Your task to perform on an android device: Open calendar and show me the second week of next month Image 0: 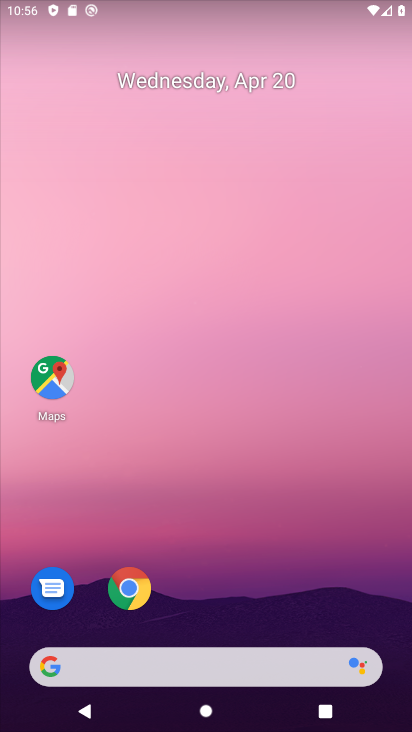
Step 0: drag from (220, 400) to (258, 123)
Your task to perform on an android device: Open calendar and show me the second week of next month Image 1: 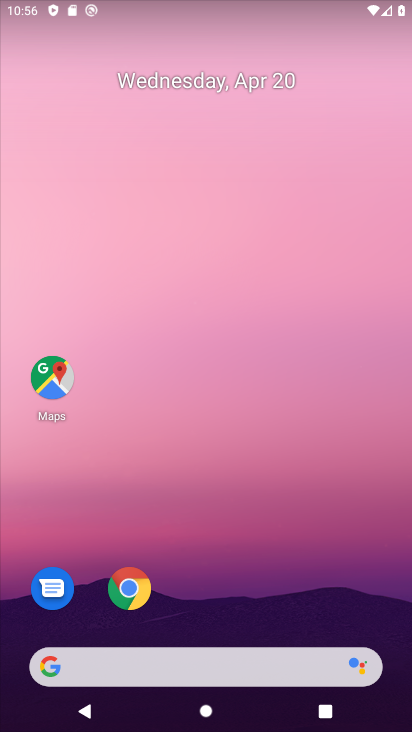
Step 1: drag from (238, 491) to (338, 93)
Your task to perform on an android device: Open calendar and show me the second week of next month Image 2: 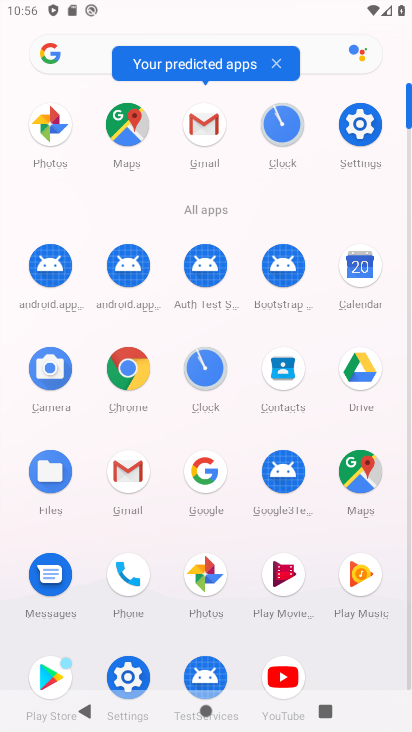
Step 2: click (368, 266)
Your task to perform on an android device: Open calendar and show me the second week of next month Image 3: 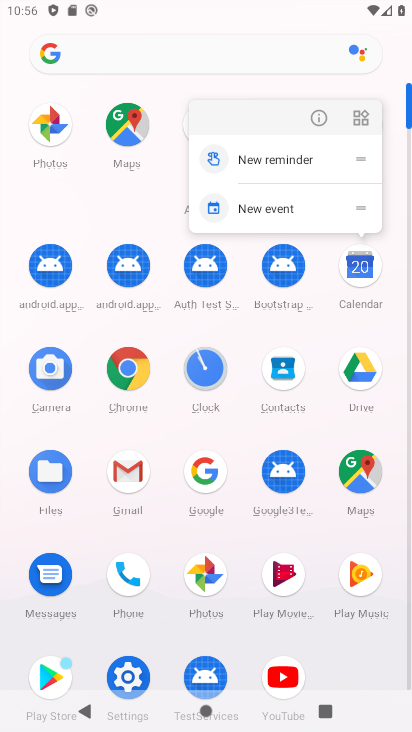
Step 3: click (366, 266)
Your task to perform on an android device: Open calendar and show me the second week of next month Image 4: 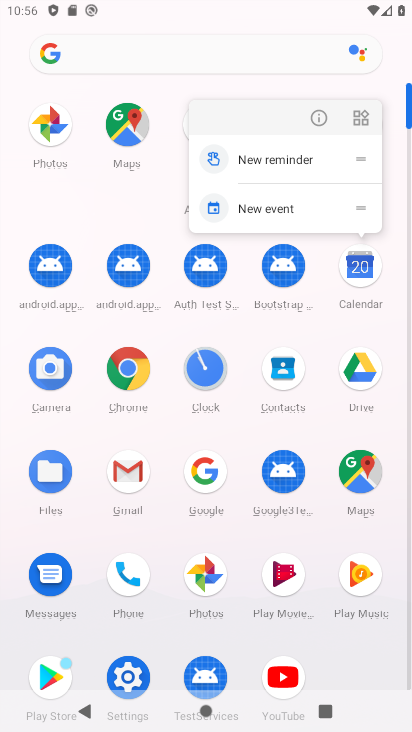
Step 4: click (360, 277)
Your task to perform on an android device: Open calendar and show me the second week of next month Image 5: 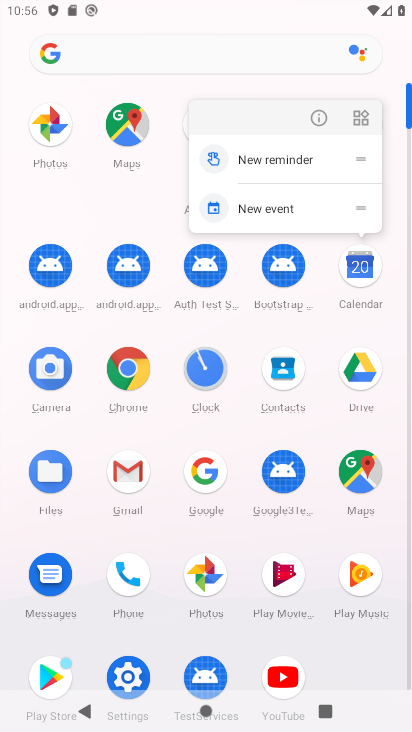
Step 5: click (363, 277)
Your task to perform on an android device: Open calendar and show me the second week of next month Image 6: 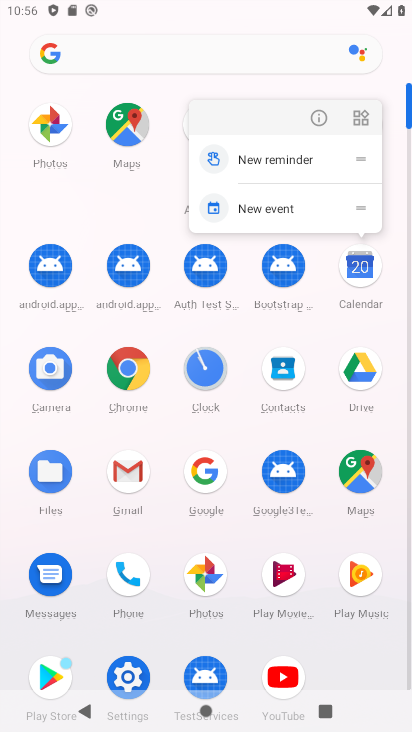
Step 6: click (349, 278)
Your task to perform on an android device: Open calendar and show me the second week of next month Image 7: 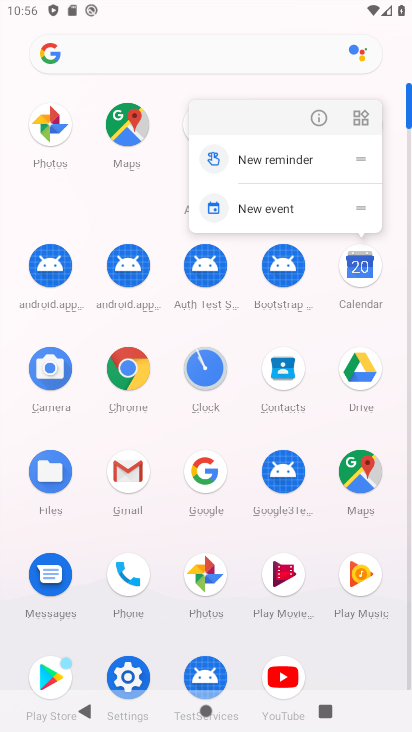
Step 7: click (376, 271)
Your task to perform on an android device: Open calendar and show me the second week of next month Image 8: 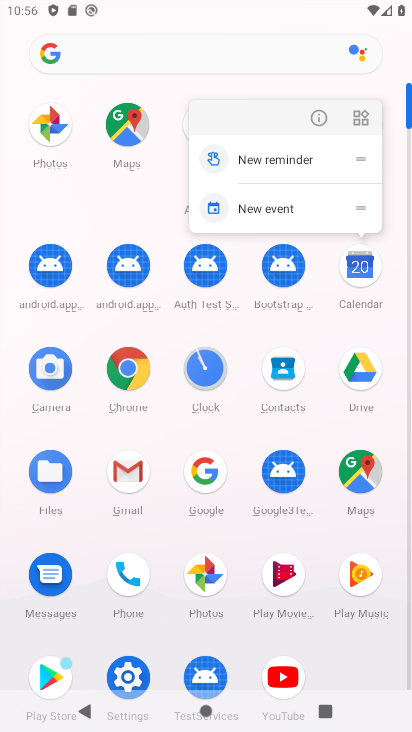
Step 8: click (367, 268)
Your task to perform on an android device: Open calendar and show me the second week of next month Image 9: 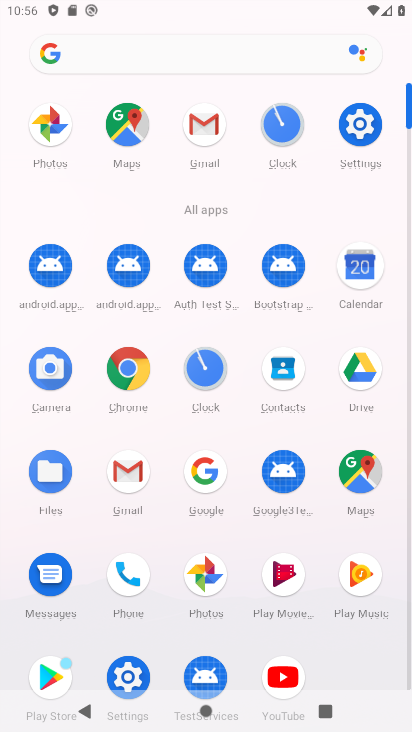
Step 9: click (367, 268)
Your task to perform on an android device: Open calendar and show me the second week of next month Image 10: 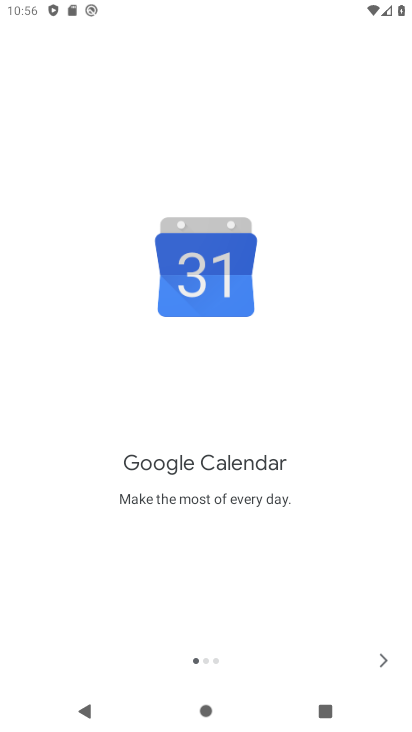
Step 10: click (376, 664)
Your task to perform on an android device: Open calendar and show me the second week of next month Image 11: 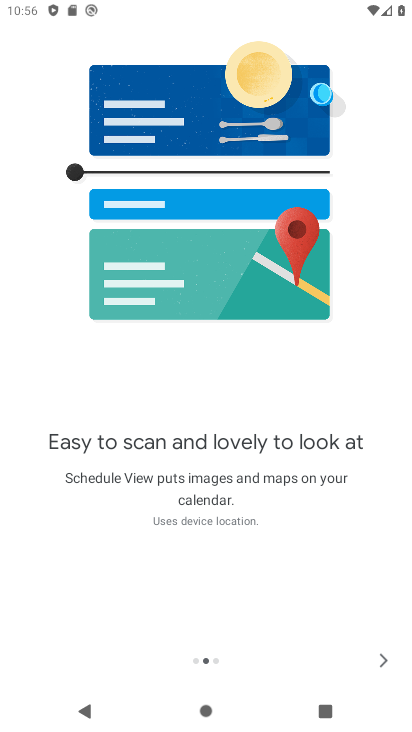
Step 11: click (380, 667)
Your task to perform on an android device: Open calendar and show me the second week of next month Image 12: 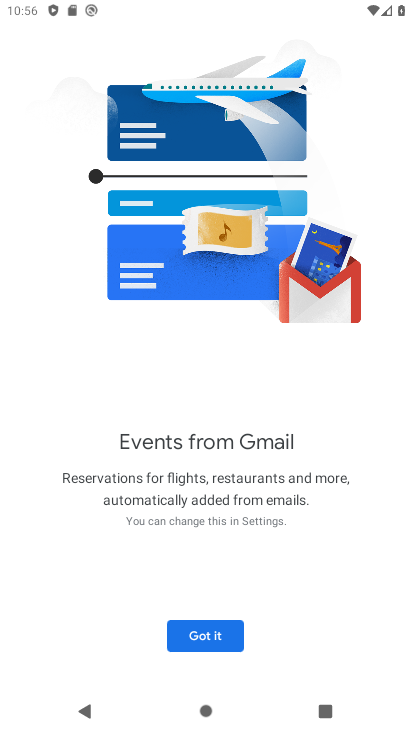
Step 12: click (222, 638)
Your task to perform on an android device: Open calendar and show me the second week of next month Image 13: 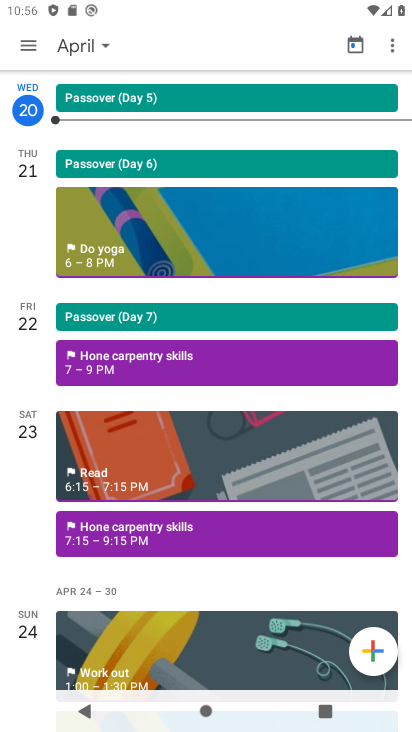
Step 13: click (77, 47)
Your task to perform on an android device: Open calendar and show me the second week of next month Image 14: 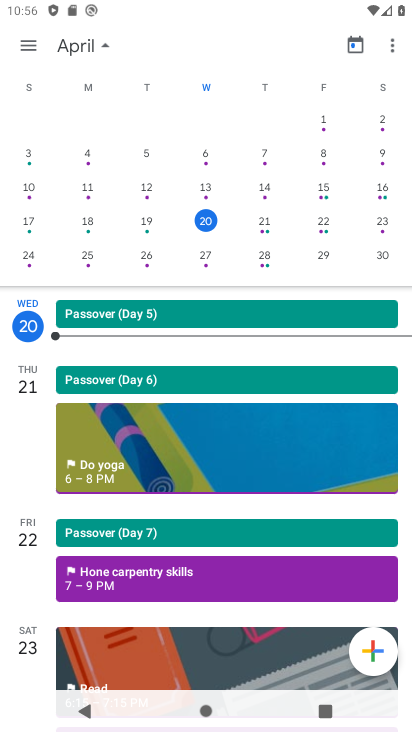
Step 14: drag from (329, 154) to (7, 148)
Your task to perform on an android device: Open calendar and show me the second week of next month Image 15: 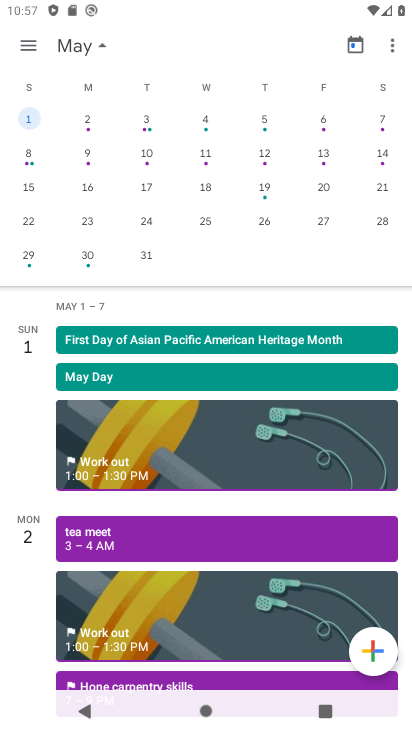
Step 15: click (31, 159)
Your task to perform on an android device: Open calendar and show me the second week of next month Image 16: 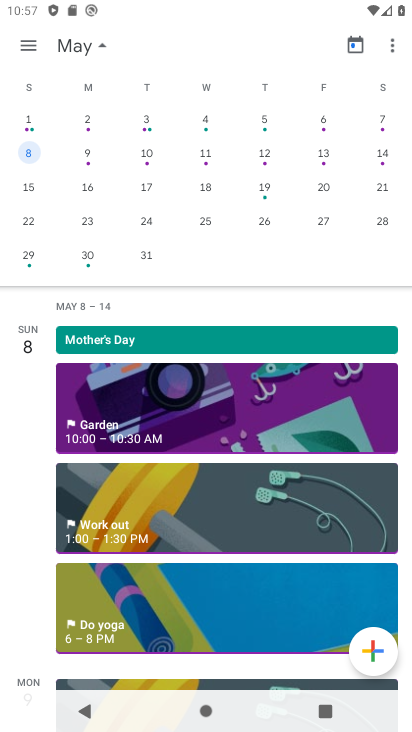
Step 16: click (32, 47)
Your task to perform on an android device: Open calendar and show me the second week of next month Image 17: 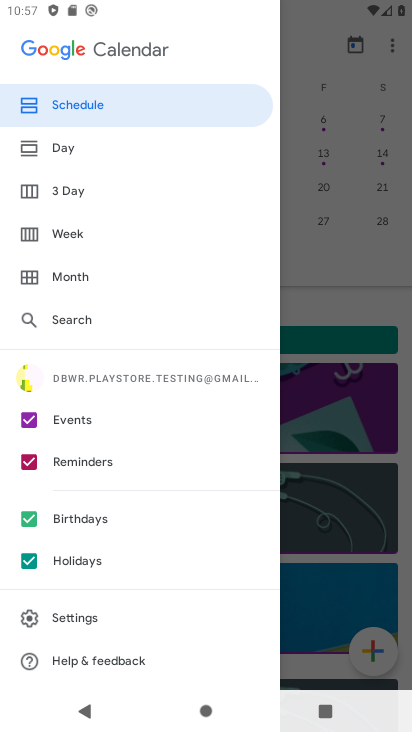
Step 17: click (100, 234)
Your task to perform on an android device: Open calendar and show me the second week of next month Image 18: 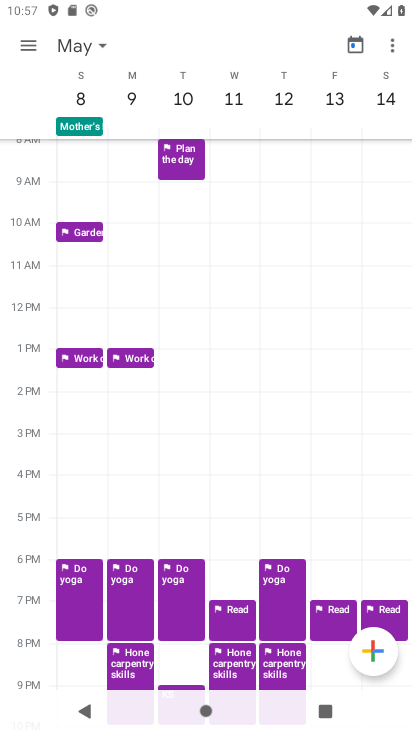
Step 18: task complete